Your task to perform on an android device: Check the news Image 0: 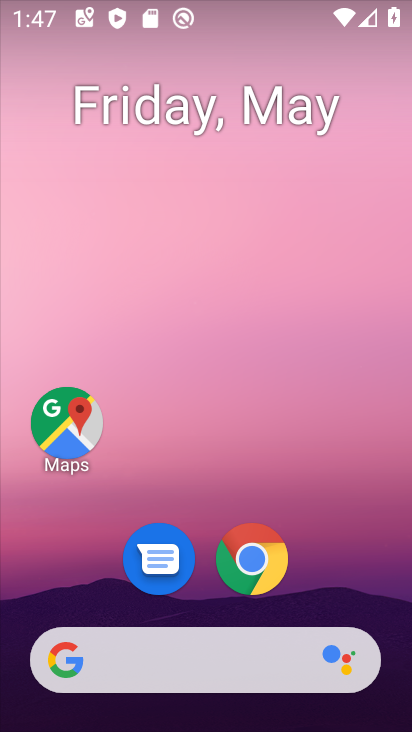
Step 0: click (196, 664)
Your task to perform on an android device: Check the news Image 1: 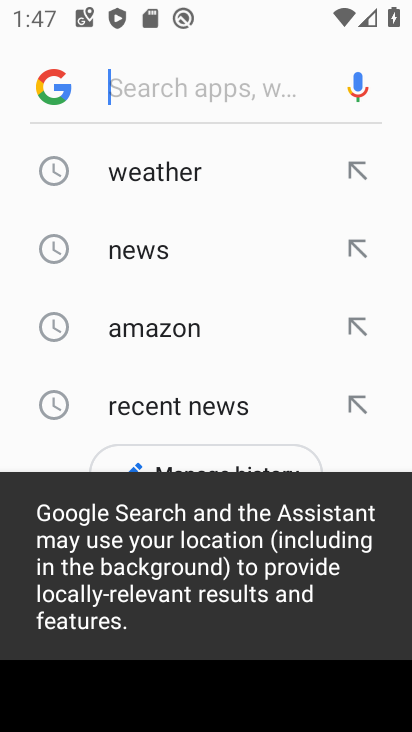
Step 1: click (160, 247)
Your task to perform on an android device: Check the news Image 2: 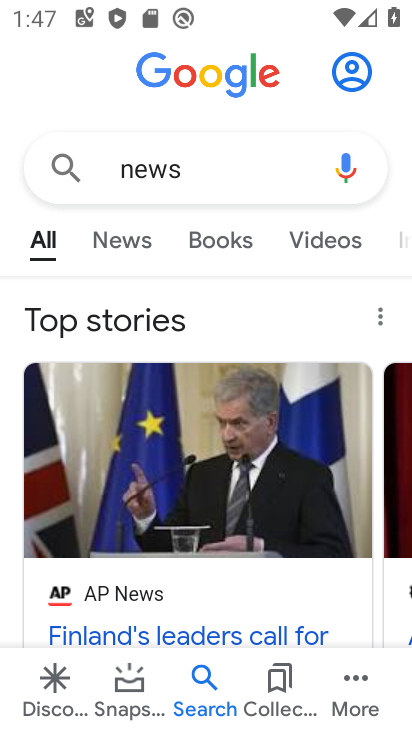
Step 2: task complete